Your task to perform on an android device: turn on data saver in the chrome app Image 0: 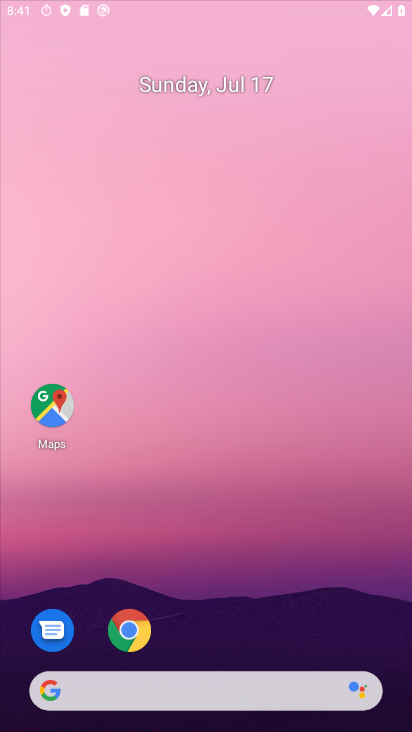
Step 0: drag from (164, 304) to (184, 231)
Your task to perform on an android device: turn on data saver in the chrome app Image 1: 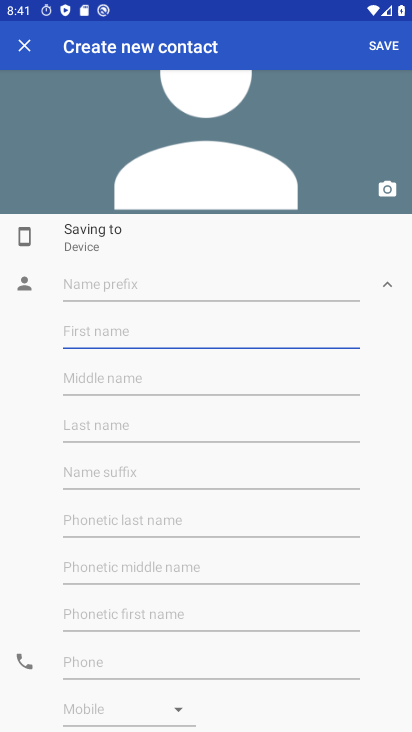
Step 1: press home button
Your task to perform on an android device: turn on data saver in the chrome app Image 2: 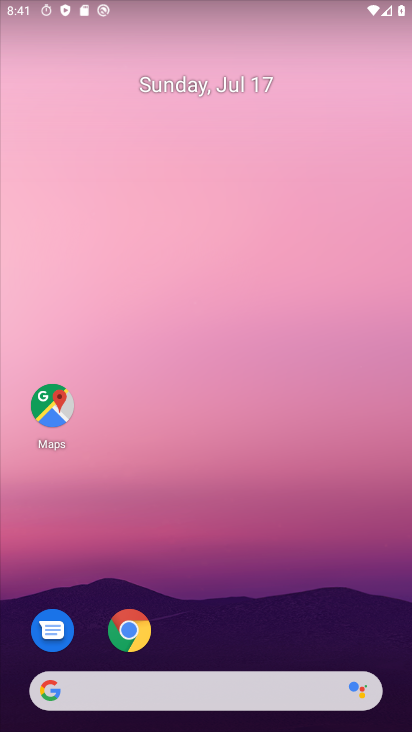
Step 2: click (112, 636)
Your task to perform on an android device: turn on data saver in the chrome app Image 3: 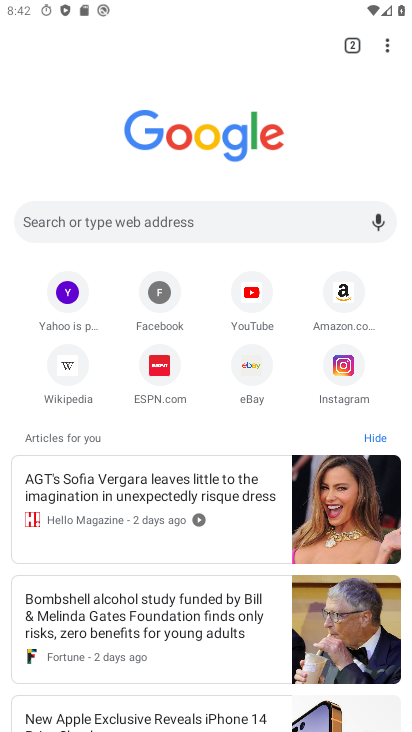
Step 3: click (390, 42)
Your task to perform on an android device: turn on data saver in the chrome app Image 4: 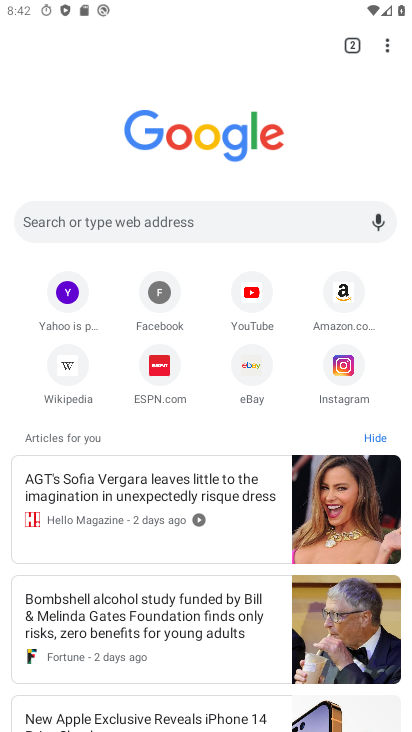
Step 4: click (385, 38)
Your task to perform on an android device: turn on data saver in the chrome app Image 5: 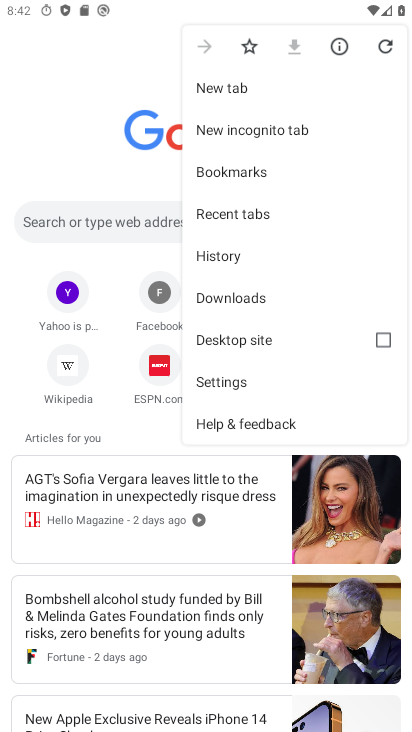
Step 5: click (228, 374)
Your task to perform on an android device: turn on data saver in the chrome app Image 6: 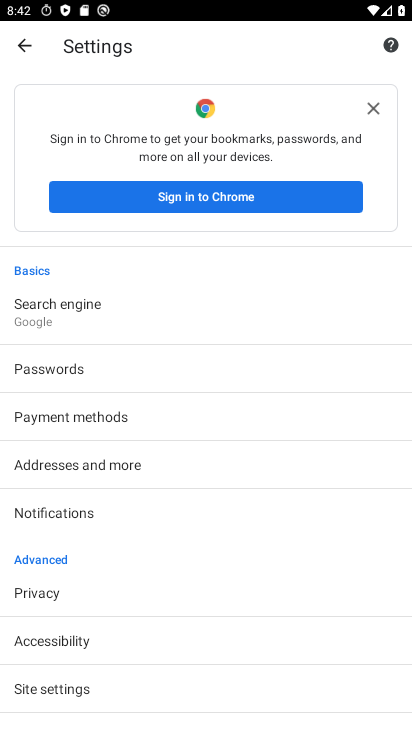
Step 6: click (271, 376)
Your task to perform on an android device: turn on data saver in the chrome app Image 7: 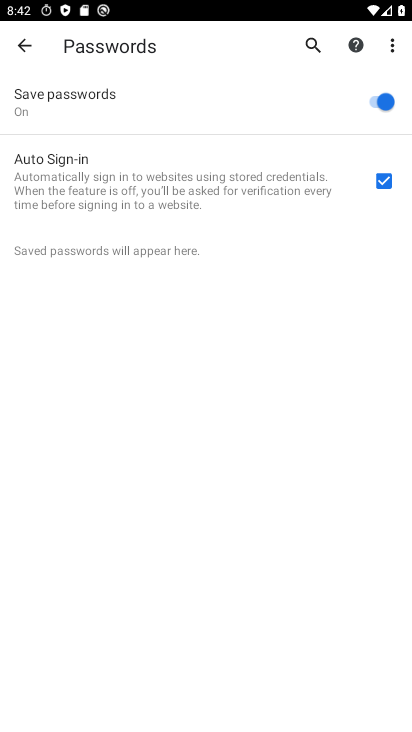
Step 7: click (25, 43)
Your task to perform on an android device: turn on data saver in the chrome app Image 8: 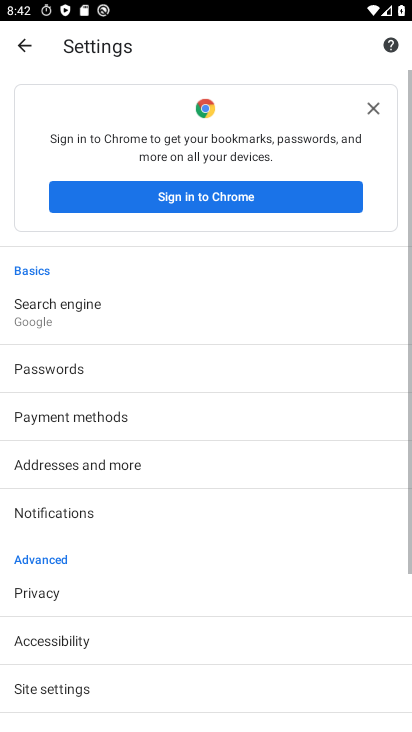
Step 8: click (101, 693)
Your task to perform on an android device: turn on data saver in the chrome app Image 9: 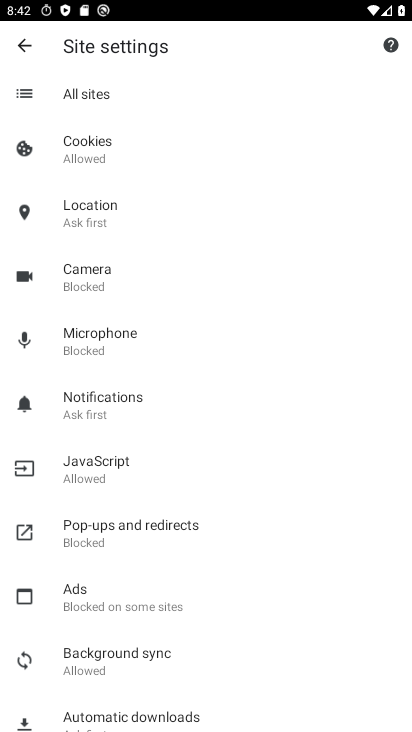
Step 9: task complete